Your task to perform on an android device: Find coffee shops on Maps Image 0: 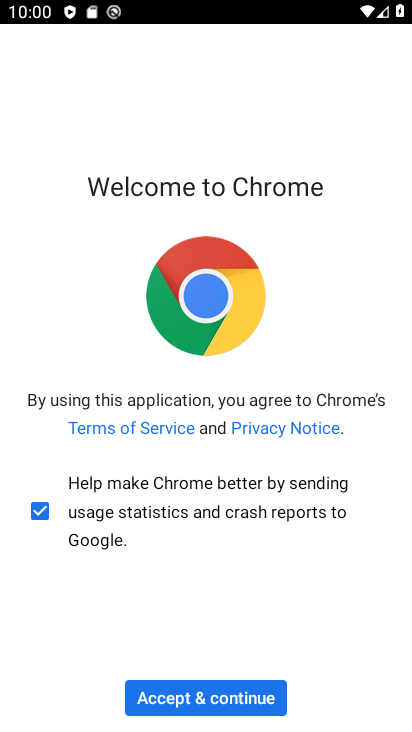
Step 0: press home button
Your task to perform on an android device: Find coffee shops on Maps Image 1: 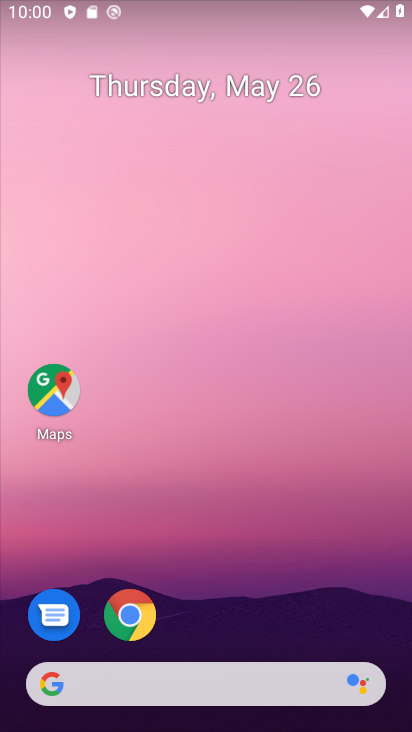
Step 1: drag from (142, 676) to (195, 20)
Your task to perform on an android device: Find coffee shops on Maps Image 2: 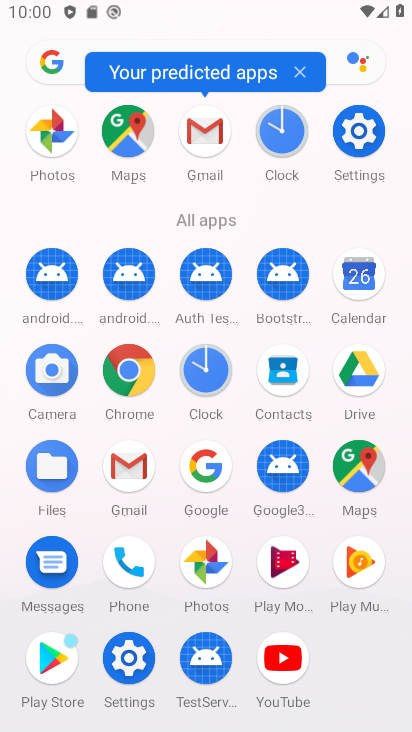
Step 2: click (346, 464)
Your task to perform on an android device: Find coffee shops on Maps Image 3: 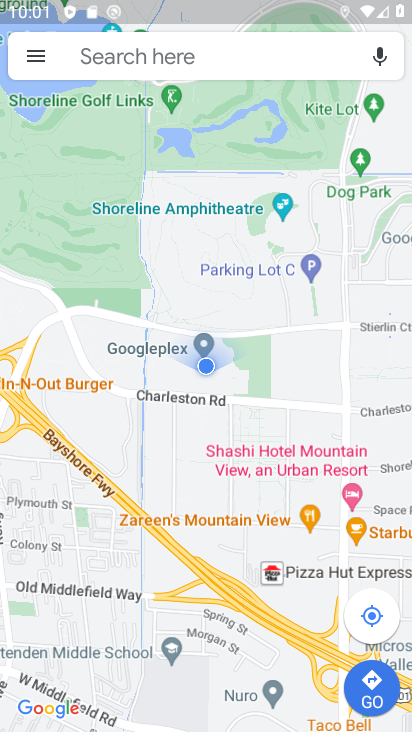
Step 3: click (182, 57)
Your task to perform on an android device: Find coffee shops on Maps Image 4: 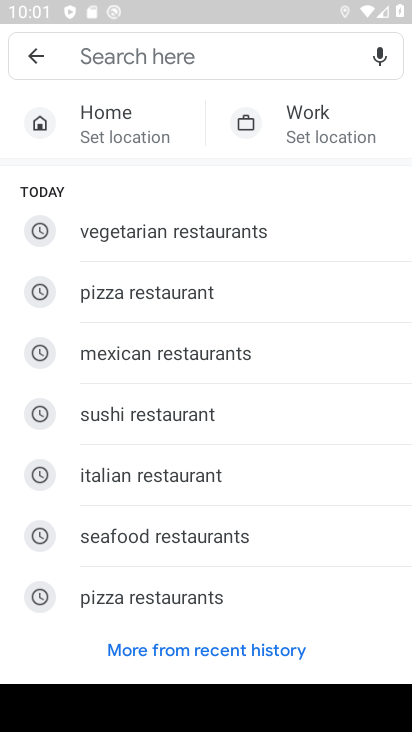
Step 4: type "coffee shops"
Your task to perform on an android device: Find coffee shops on Maps Image 5: 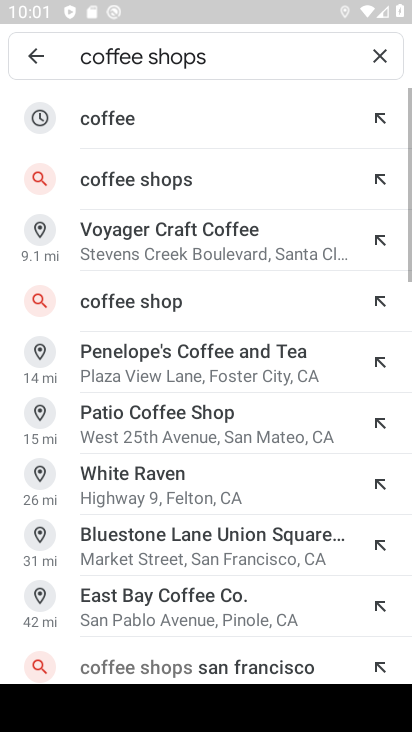
Step 5: click (125, 185)
Your task to perform on an android device: Find coffee shops on Maps Image 6: 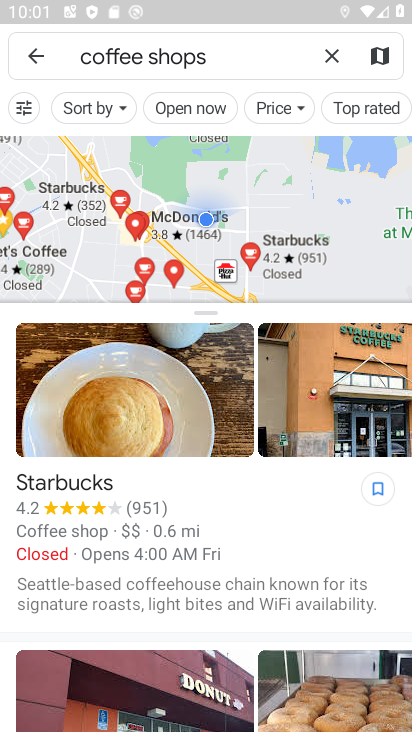
Step 6: task complete